Your task to perform on an android device: turn pop-ups off in chrome Image 0: 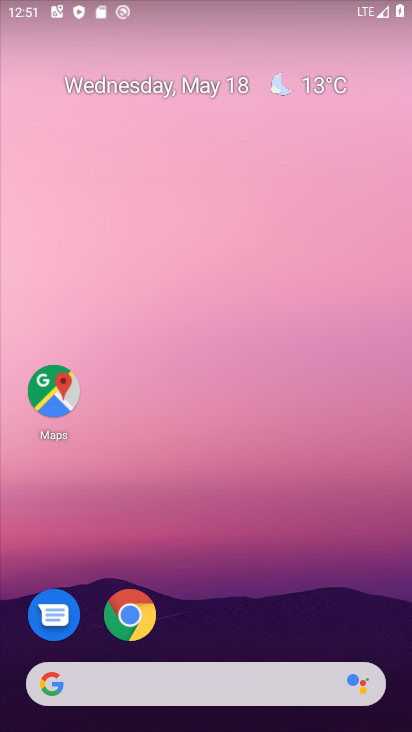
Step 0: click (132, 623)
Your task to perform on an android device: turn pop-ups off in chrome Image 1: 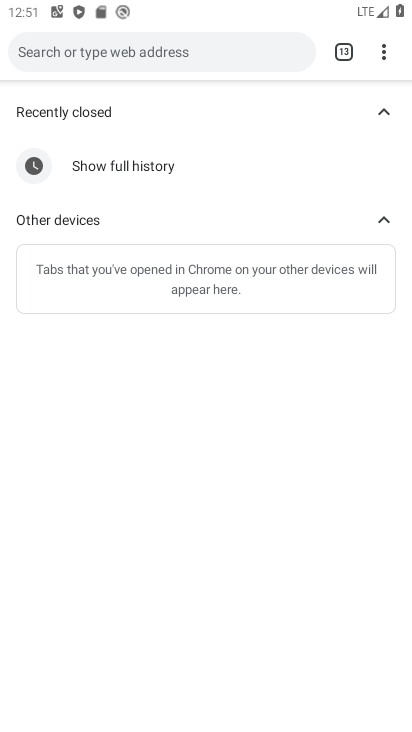
Step 1: drag from (385, 61) to (212, 445)
Your task to perform on an android device: turn pop-ups off in chrome Image 2: 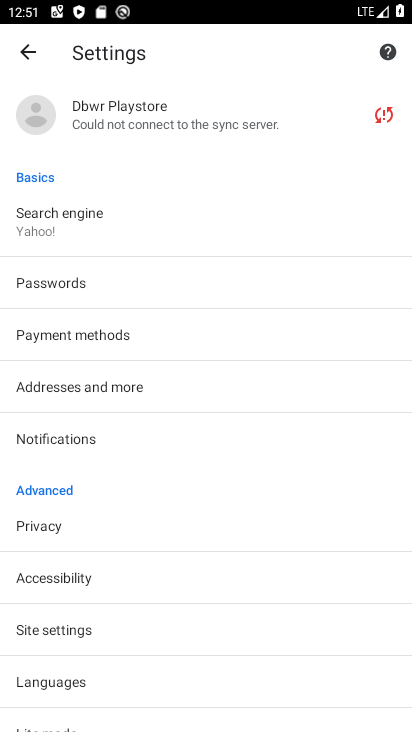
Step 2: click (75, 626)
Your task to perform on an android device: turn pop-ups off in chrome Image 3: 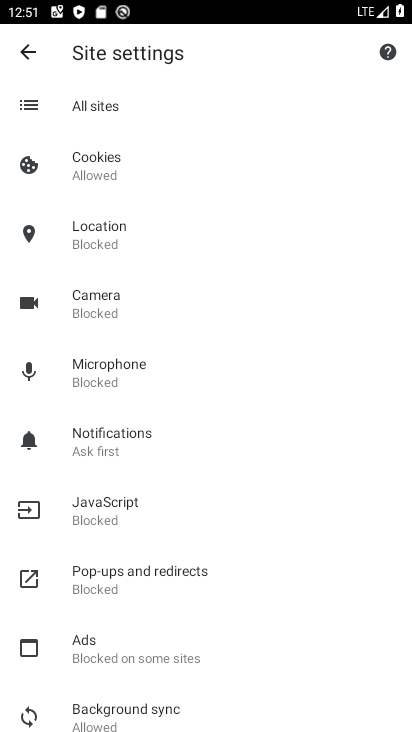
Step 3: click (105, 573)
Your task to perform on an android device: turn pop-ups off in chrome Image 4: 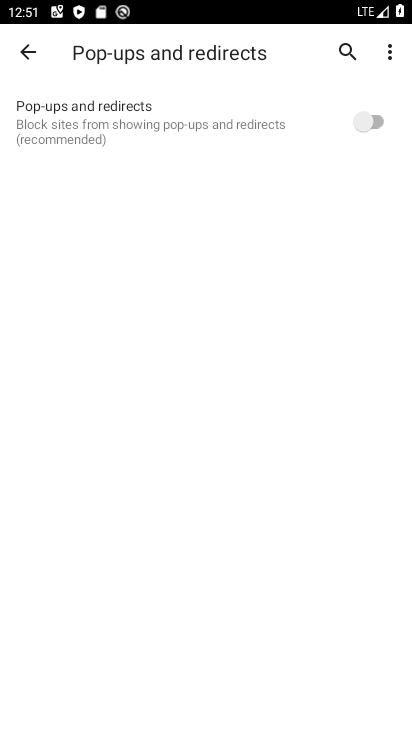
Step 4: task complete